Your task to perform on an android device: Is it going to rain this weekend? Image 0: 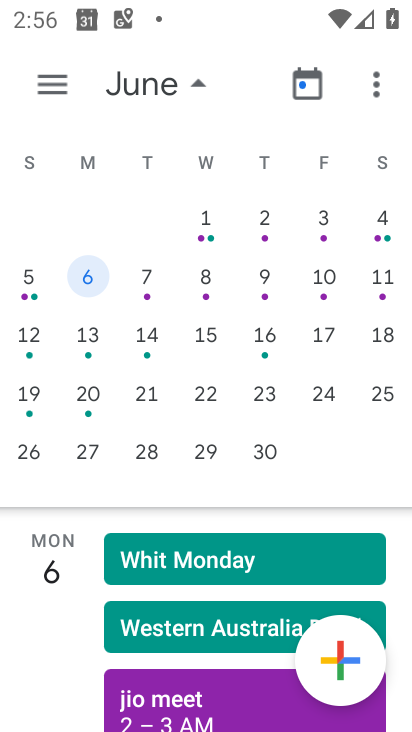
Step 0: press home button
Your task to perform on an android device: Is it going to rain this weekend? Image 1: 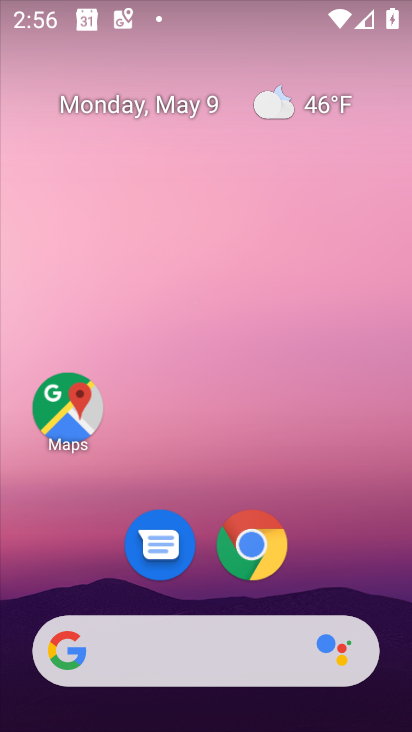
Step 1: drag from (215, 592) to (233, 288)
Your task to perform on an android device: Is it going to rain this weekend? Image 2: 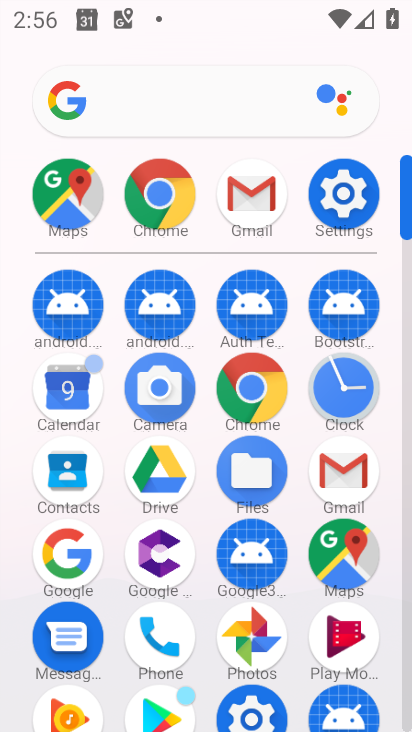
Step 2: click (73, 551)
Your task to perform on an android device: Is it going to rain this weekend? Image 3: 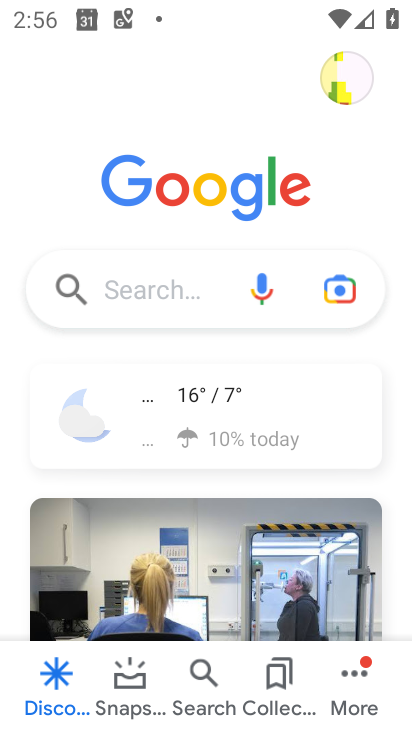
Step 3: click (176, 403)
Your task to perform on an android device: Is it going to rain this weekend? Image 4: 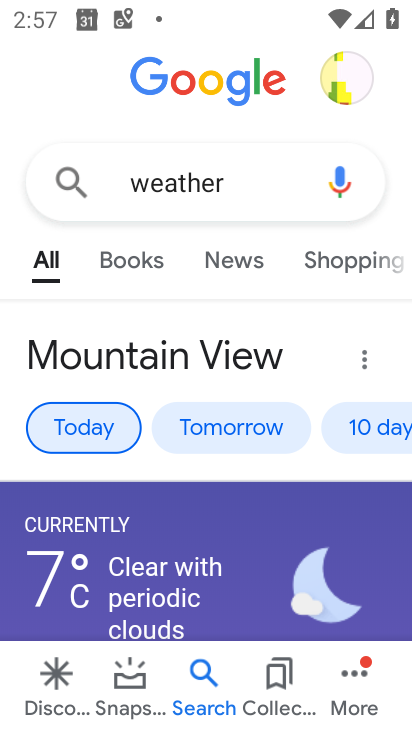
Step 4: click (381, 425)
Your task to perform on an android device: Is it going to rain this weekend? Image 5: 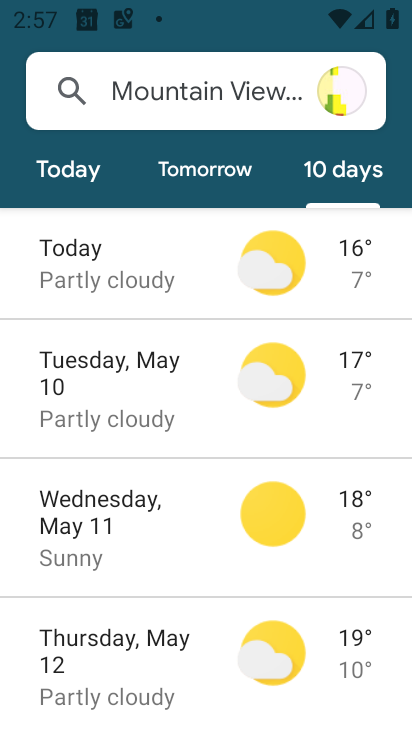
Step 5: task complete